Your task to perform on an android device: Show me productivity apps on the Play Store Image 0: 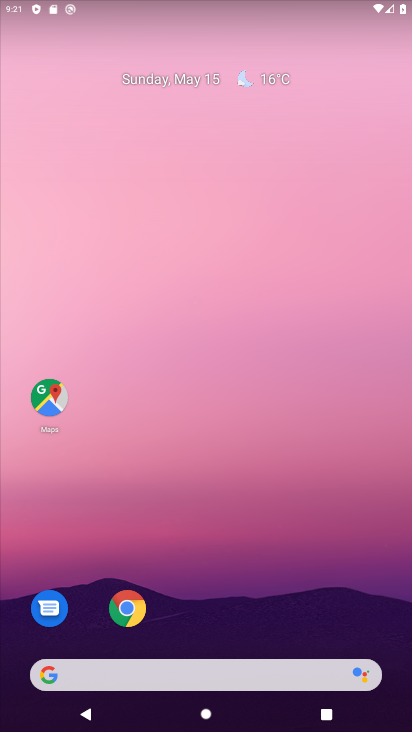
Step 0: drag from (207, 646) to (124, 159)
Your task to perform on an android device: Show me productivity apps on the Play Store Image 1: 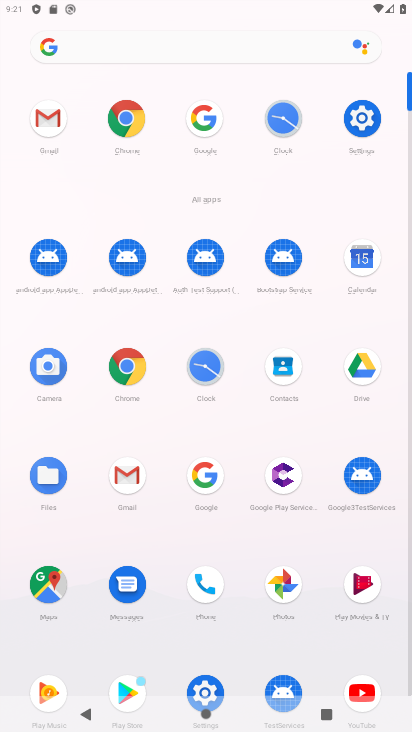
Step 1: click (126, 683)
Your task to perform on an android device: Show me productivity apps on the Play Store Image 2: 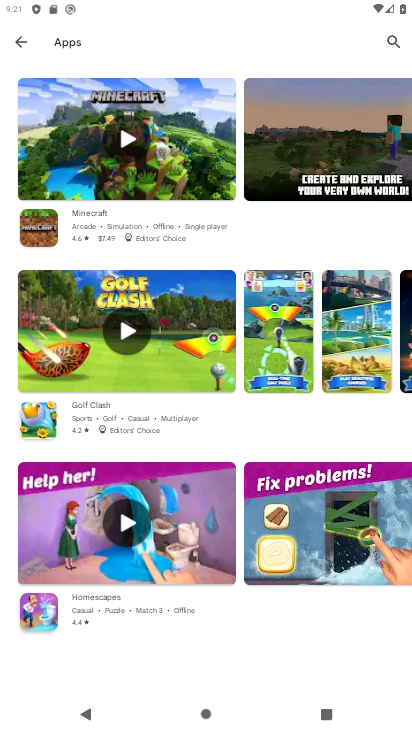
Step 2: click (16, 24)
Your task to perform on an android device: Show me productivity apps on the Play Store Image 3: 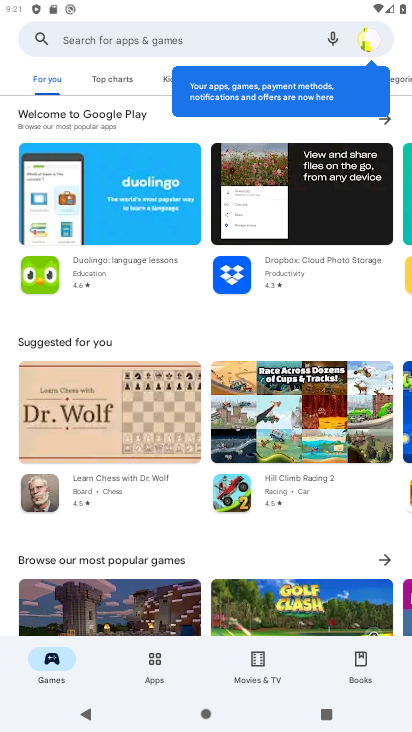
Step 3: click (161, 662)
Your task to perform on an android device: Show me productivity apps on the Play Store Image 4: 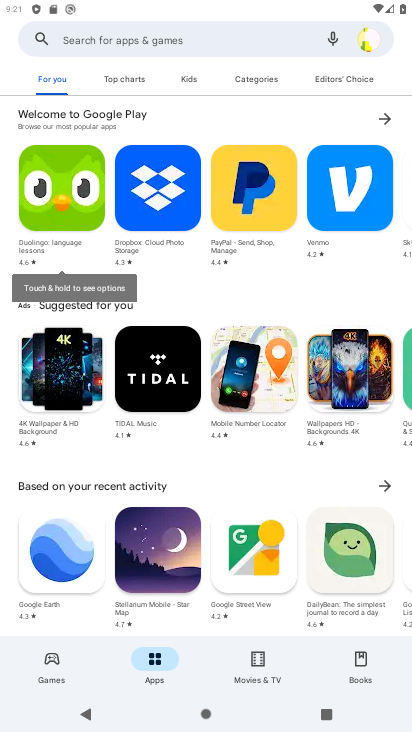
Step 4: click (258, 86)
Your task to perform on an android device: Show me productivity apps on the Play Store Image 5: 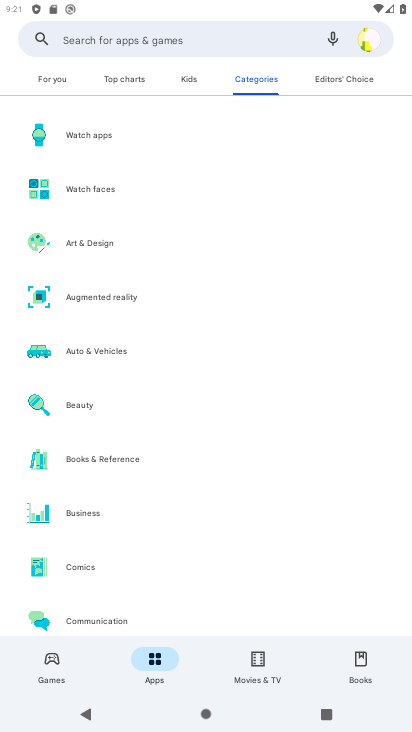
Step 5: drag from (193, 504) to (166, 109)
Your task to perform on an android device: Show me productivity apps on the Play Store Image 6: 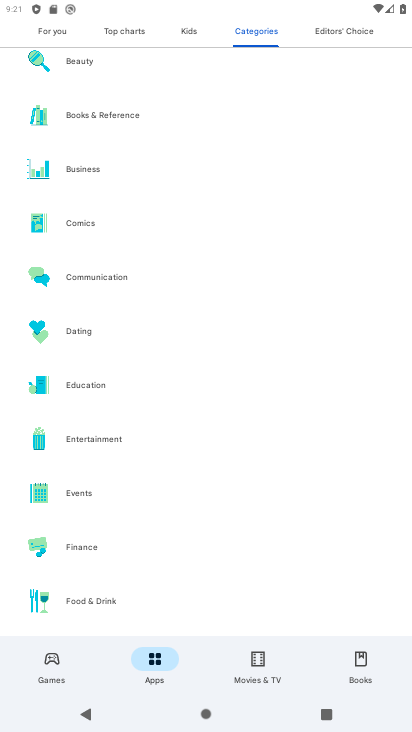
Step 6: drag from (146, 550) to (123, 56)
Your task to perform on an android device: Show me productivity apps on the Play Store Image 7: 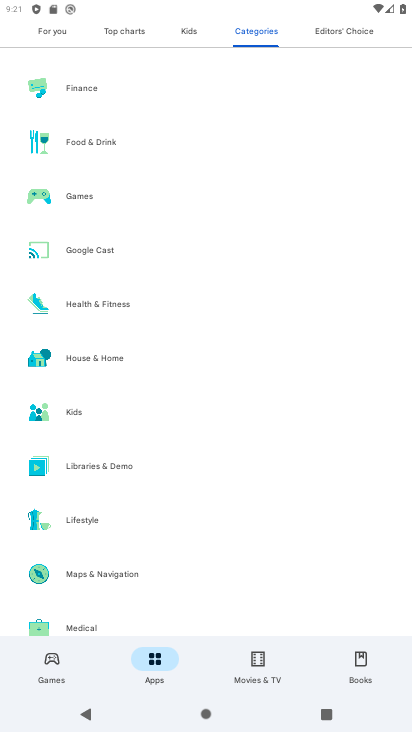
Step 7: drag from (107, 567) to (102, 296)
Your task to perform on an android device: Show me productivity apps on the Play Store Image 8: 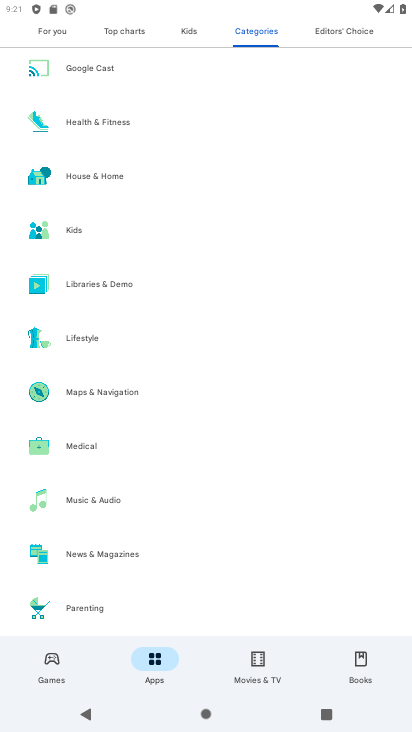
Step 8: drag from (104, 612) to (113, 47)
Your task to perform on an android device: Show me productivity apps on the Play Store Image 9: 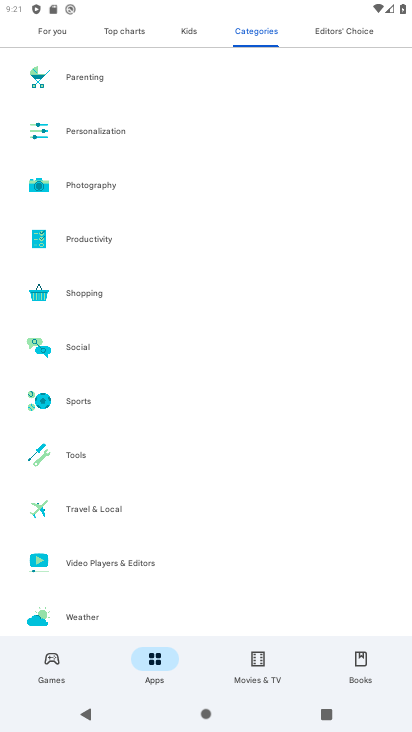
Step 9: click (95, 231)
Your task to perform on an android device: Show me productivity apps on the Play Store Image 10: 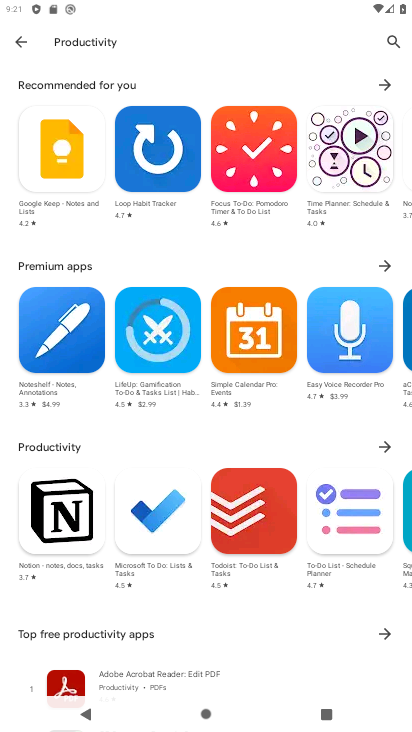
Step 10: task complete